Your task to perform on an android device: move a message to another label in the gmail app Image 0: 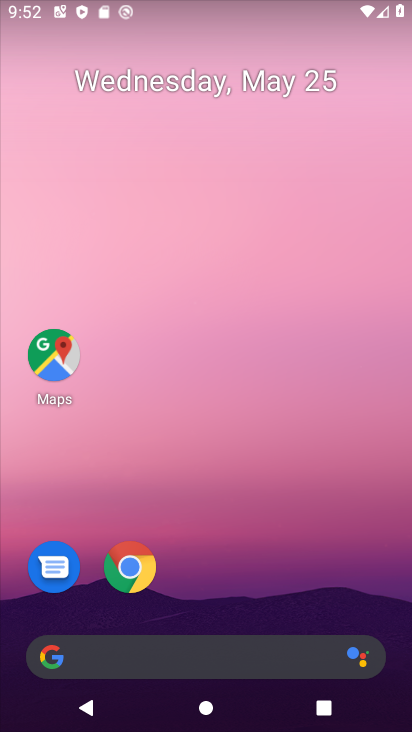
Step 0: drag from (279, 609) to (292, 5)
Your task to perform on an android device: move a message to another label in the gmail app Image 1: 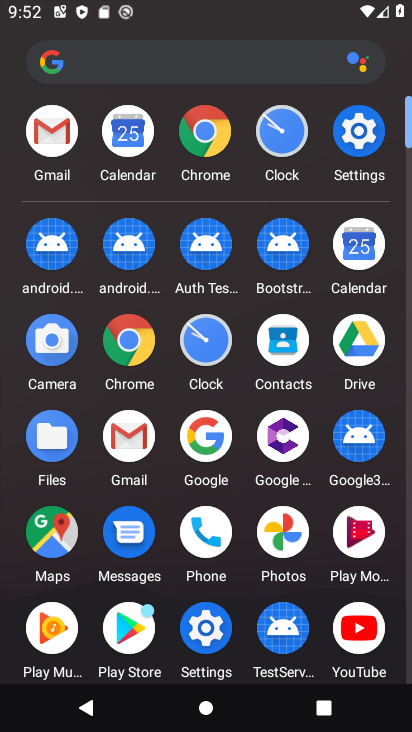
Step 1: click (44, 142)
Your task to perform on an android device: move a message to another label in the gmail app Image 2: 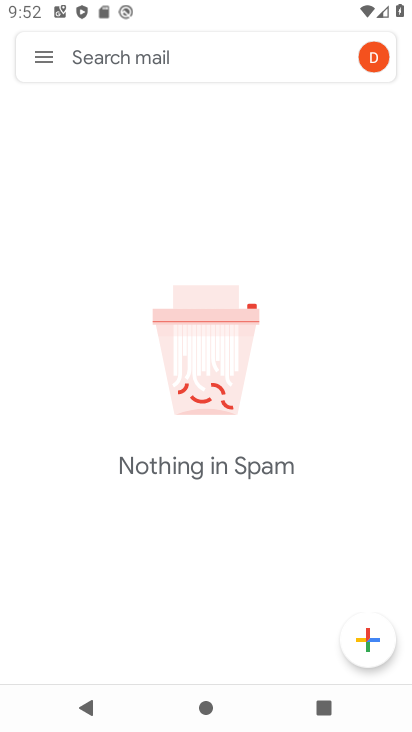
Step 2: click (40, 63)
Your task to perform on an android device: move a message to another label in the gmail app Image 3: 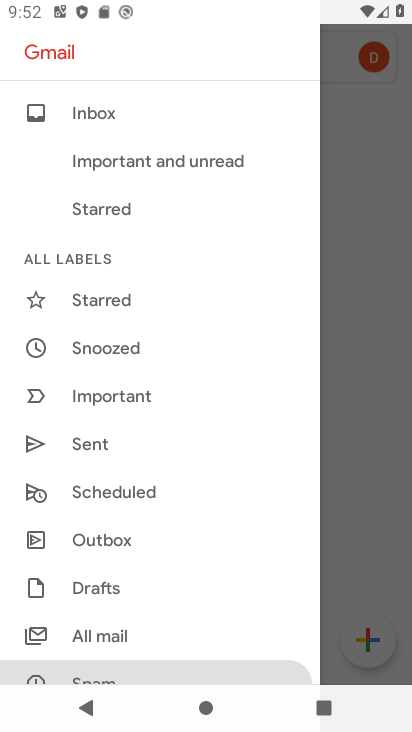
Step 3: click (132, 124)
Your task to perform on an android device: move a message to another label in the gmail app Image 4: 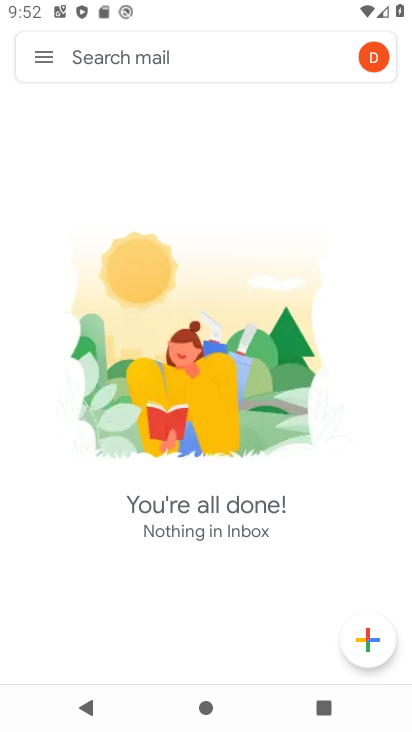
Step 4: task complete